Your task to perform on an android device: change the clock display to analog Image 0: 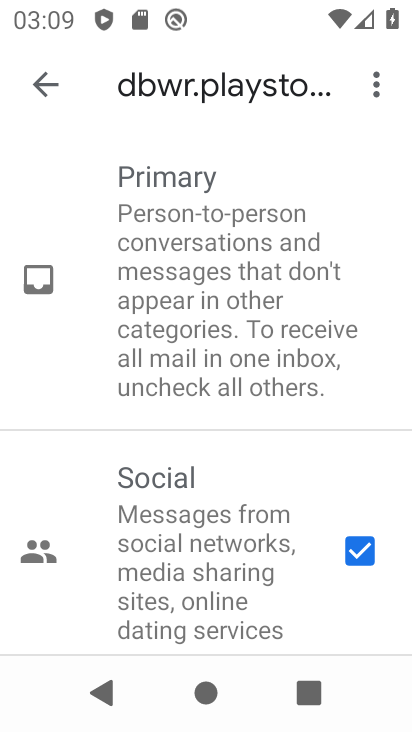
Step 0: press home button
Your task to perform on an android device: change the clock display to analog Image 1: 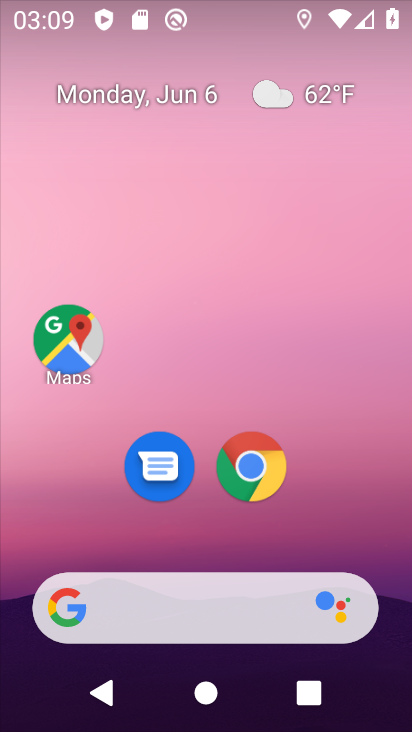
Step 1: drag from (342, 463) to (308, 53)
Your task to perform on an android device: change the clock display to analog Image 2: 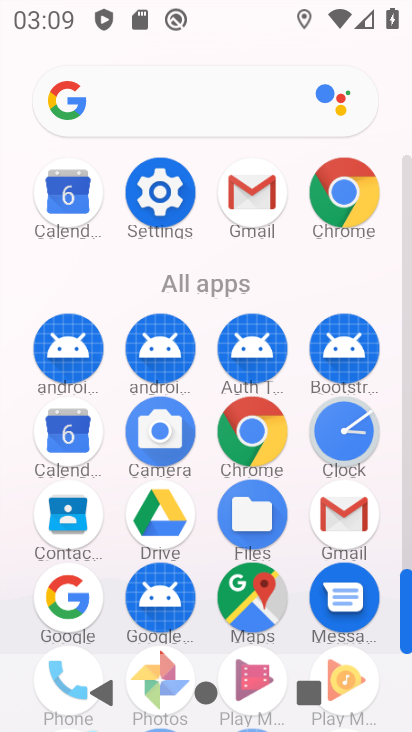
Step 2: click (345, 440)
Your task to perform on an android device: change the clock display to analog Image 3: 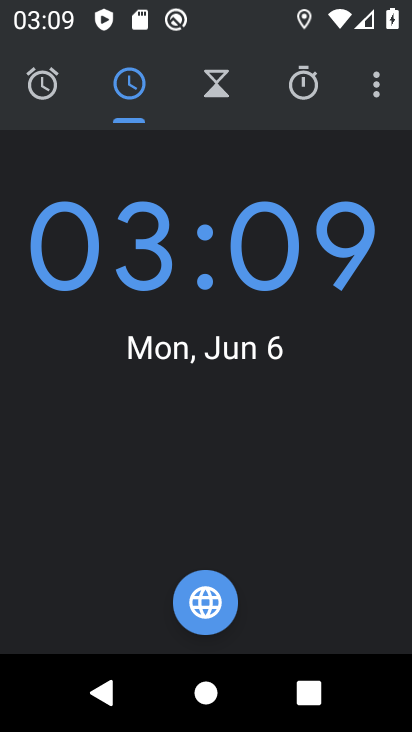
Step 3: drag from (379, 91) to (212, 189)
Your task to perform on an android device: change the clock display to analog Image 4: 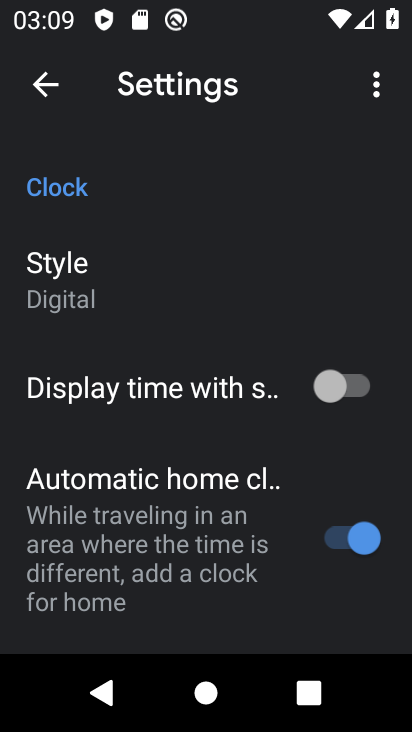
Step 4: click (72, 282)
Your task to perform on an android device: change the clock display to analog Image 5: 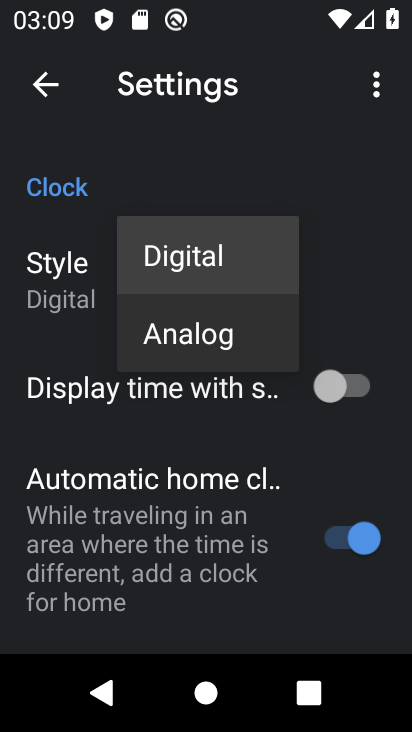
Step 5: click (160, 344)
Your task to perform on an android device: change the clock display to analog Image 6: 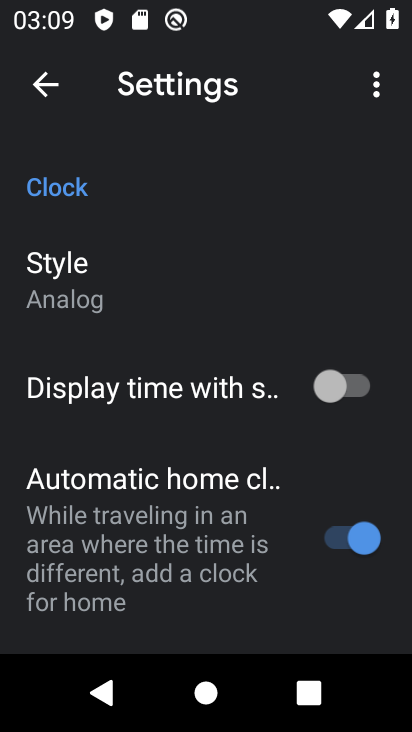
Step 6: task complete